Your task to perform on an android device: toggle data saver in the chrome app Image 0: 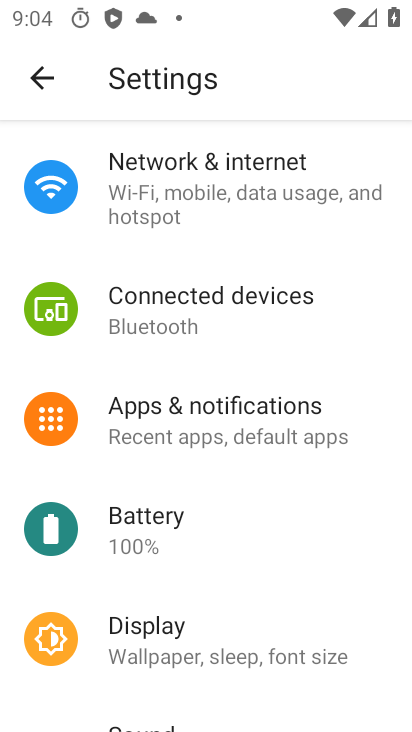
Step 0: press home button
Your task to perform on an android device: toggle data saver in the chrome app Image 1: 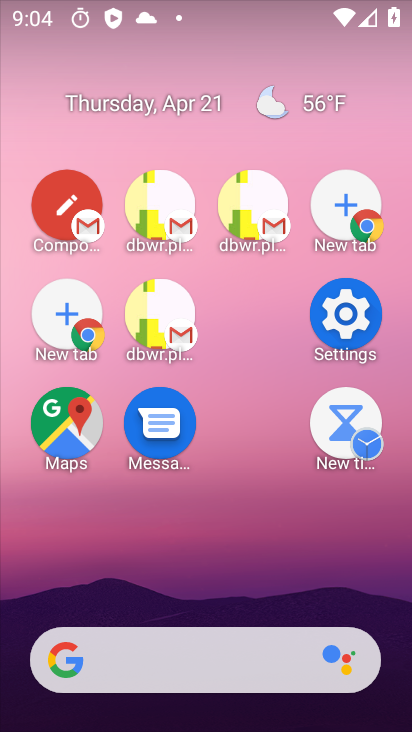
Step 1: drag from (279, 725) to (204, 24)
Your task to perform on an android device: toggle data saver in the chrome app Image 2: 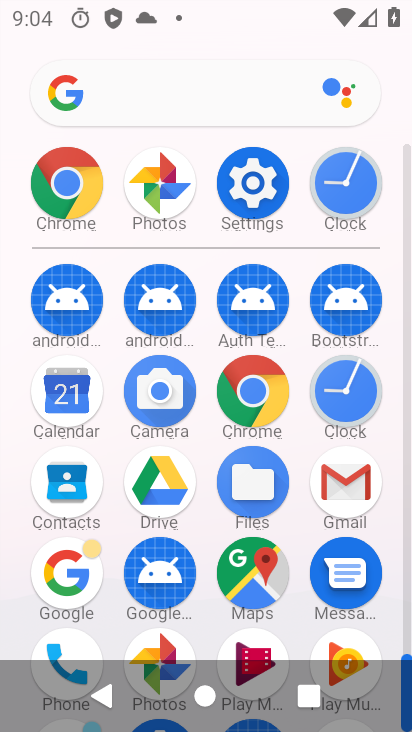
Step 2: drag from (302, 523) to (166, 100)
Your task to perform on an android device: toggle data saver in the chrome app Image 3: 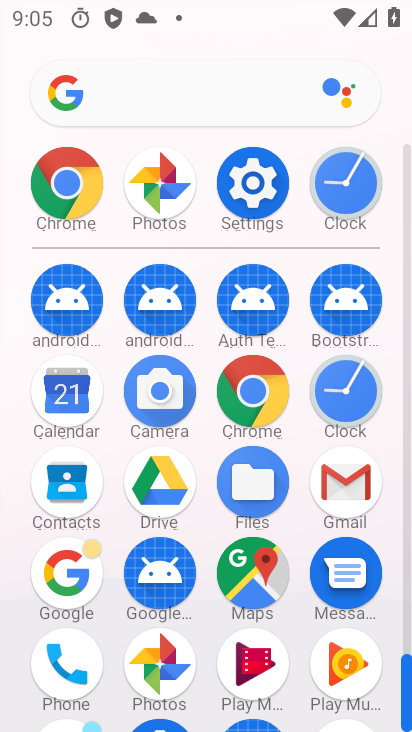
Step 3: click (66, 189)
Your task to perform on an android device: toggle data saver in the chrome app Image 4: 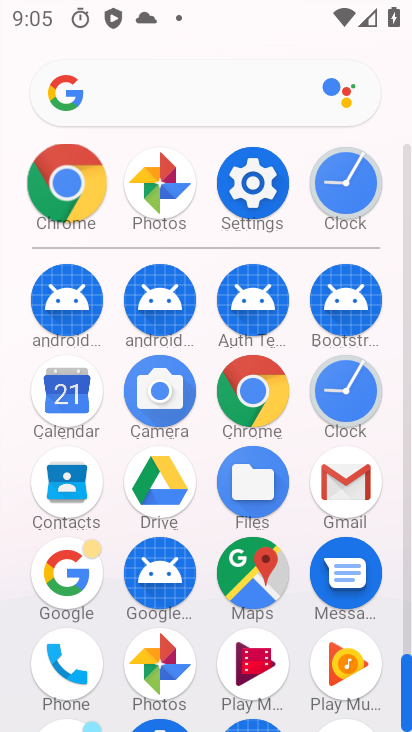
Step 4: click (69, 188)
Your task to perform on an android device: toggle data saver in the chrome app Image 5: 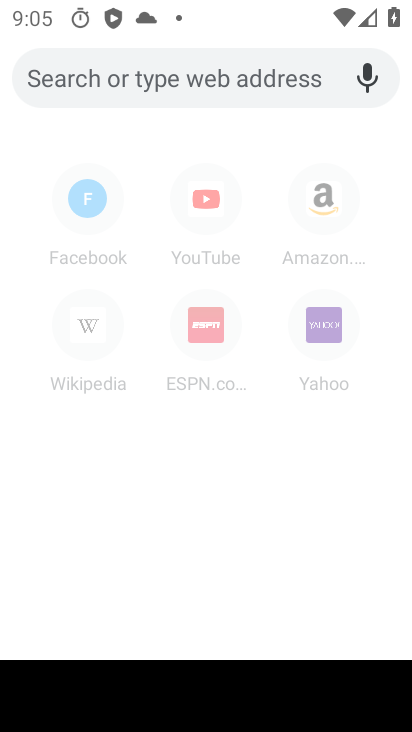
Step 5: drag from (326, 169) to (353, 603)
Your task to perform on an android device: toggle data saver in the chrome app Image 6: 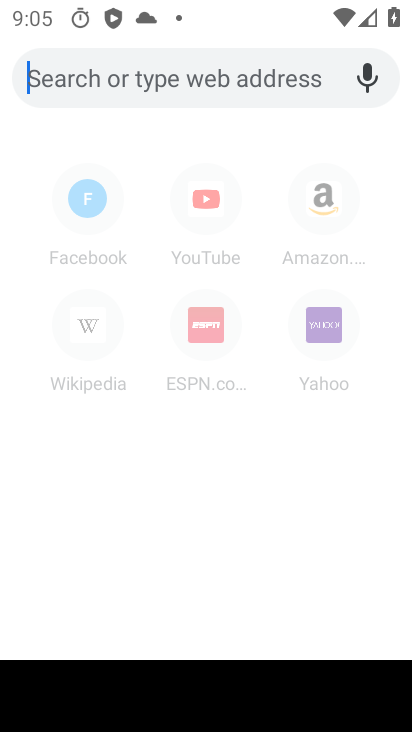
Step 6: drag from (324, 229) to (269, 498)
Your task to perform on an android device: toggle data saver in the chrome app Image 7: 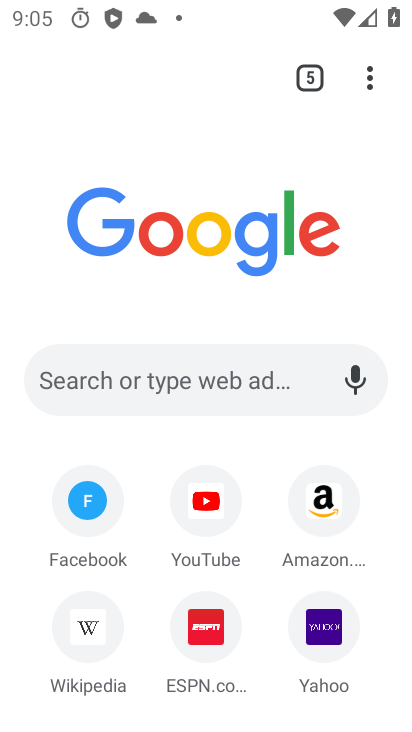
Step 7: drag from (369, 76) to (115, 608)
Your task to perform on an android device: toggle data saver in the chrome app Image 8: 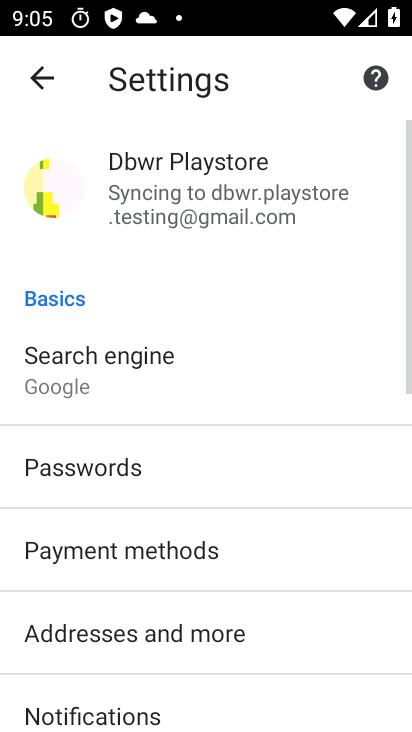
Step 8: drag from (178, 639) to (149, 272)
Your task to perform on an android device: toggle data saver in the chrome app Image 9: 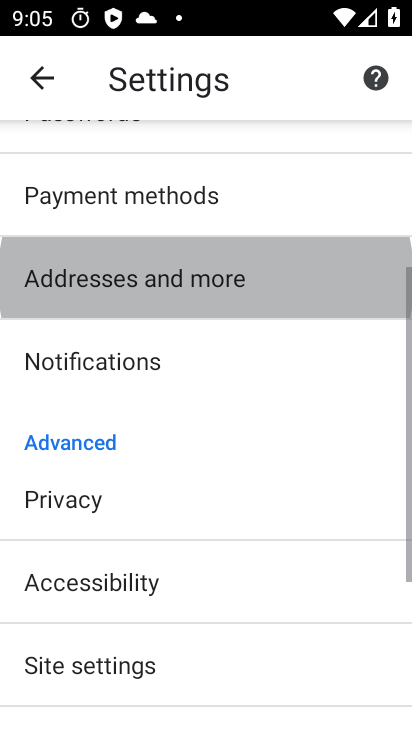
Step 9: click (155, 170)
Your task to perform on an android device: toggle data saver in the chrome app Image 10: 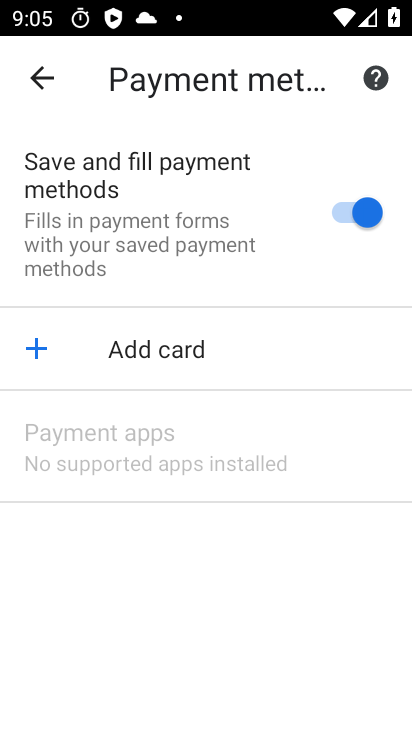
Step 10: click (35, 78)
Your task to perform on an android device: toggle data saver in the chrome app Image 11: 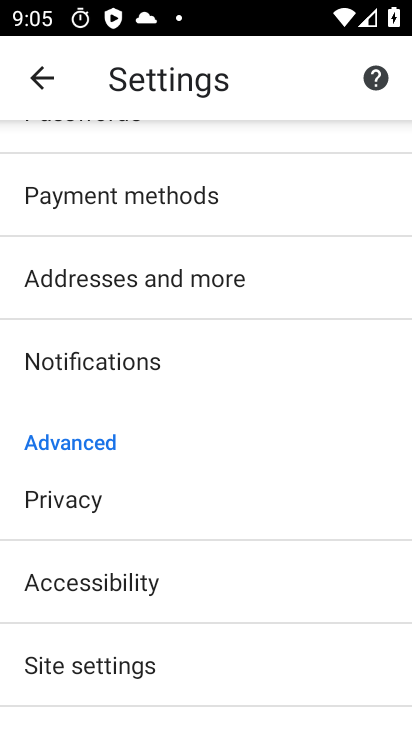
Step 11: drag from (88, 662) to (88, 282)
Your task to perform on an android device: toggle data saver in the chrome app Image 12: 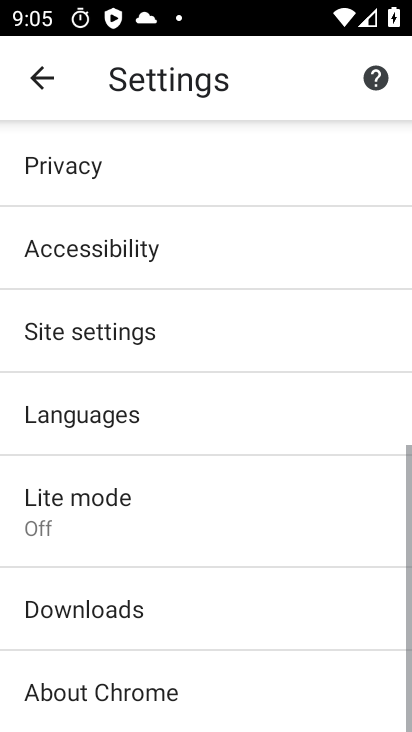
Step 12: drag from (144, 546) to (155, 150)
Your task to perform on an android device: toggle data saver in the chrome app Image 13: 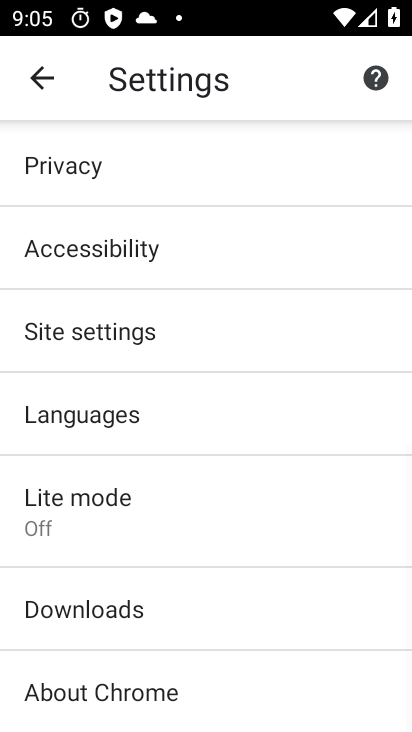
Step 13: click (87, 498)
Your task to perform on an android device: toggle data saver in the chrome app Image 14: 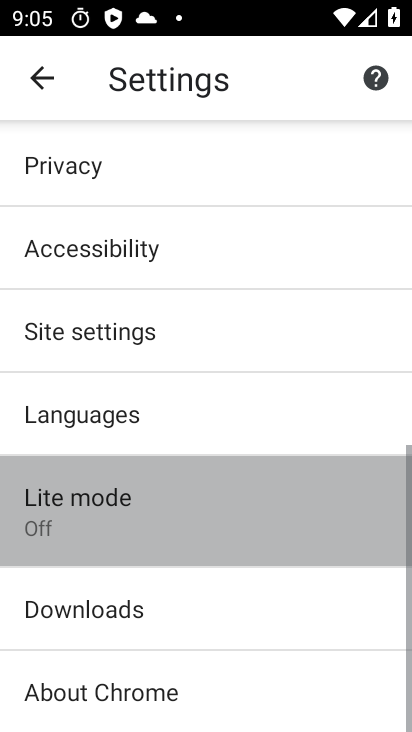
Step 14: click (86, 496)
Your task to perform on an android device: toggle data saver in the chrome app Image 15: 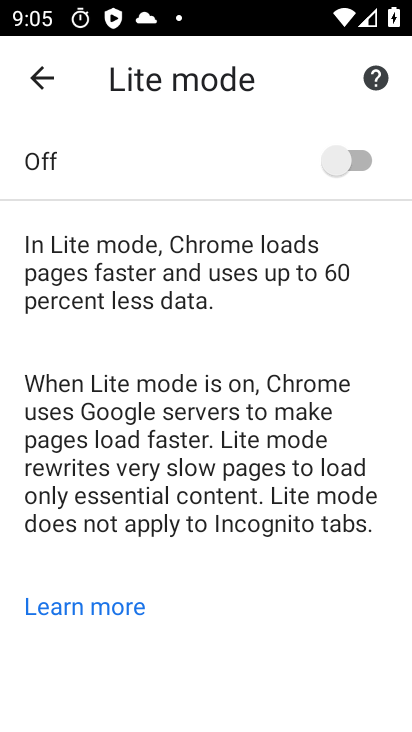
Step 15: click (86, 496)
Your task to perform on an android device: toggle data saver in the chrome app Image 16: 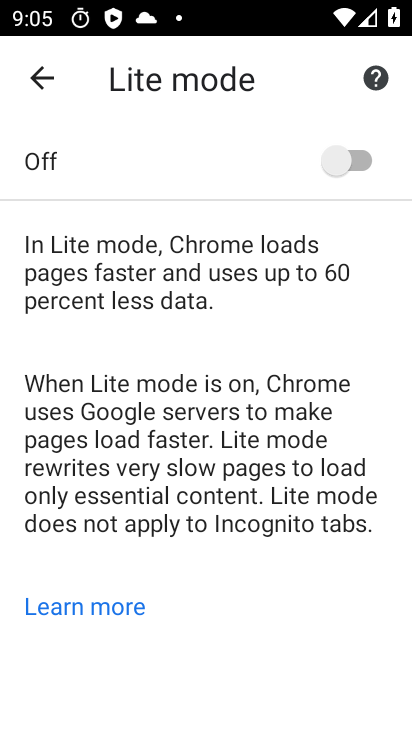
Step 16: click (340, 159)
Your task to perform on an android device: toggle data saver in the chrome app Image 17: 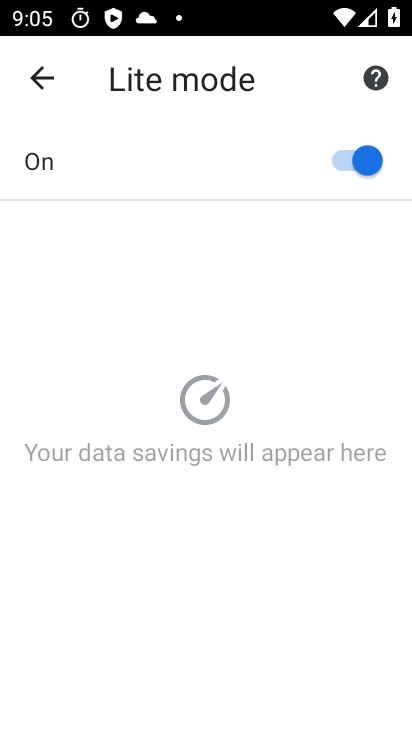
Step 17: task complete